Your task to perform on an android device: Open network settings Image 0: 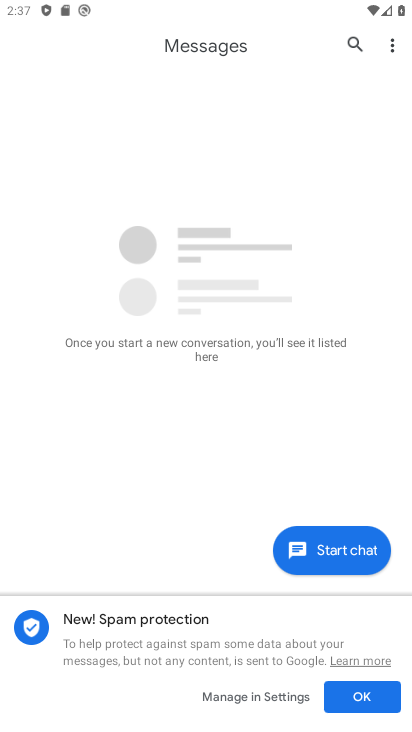
Step 0: press home button
Your task to perform on an android device: Open network settings Image 1: 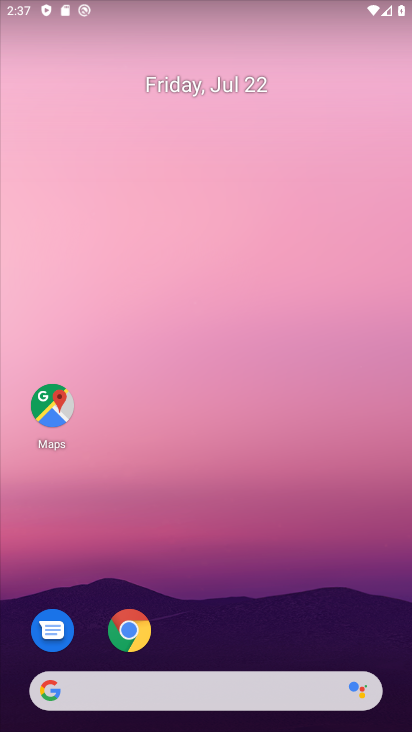
Step 1: drag from (257, 717) to (221, 257)
Your task to perform on an android device: Open network settings Image 2: 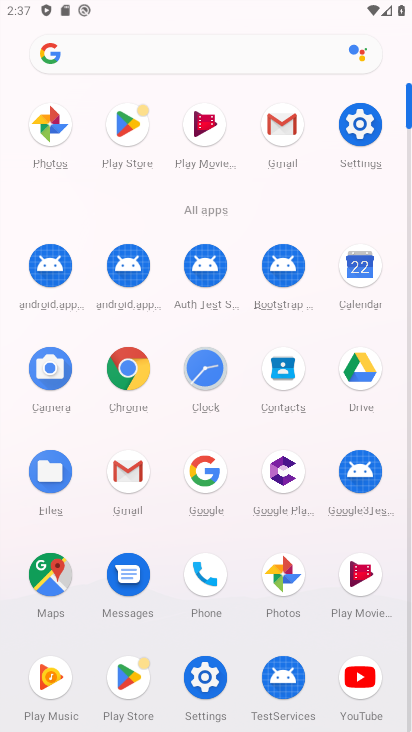
Step 2: click (356, 128)
Your task to perform on an android device: Open network settings Image 3: 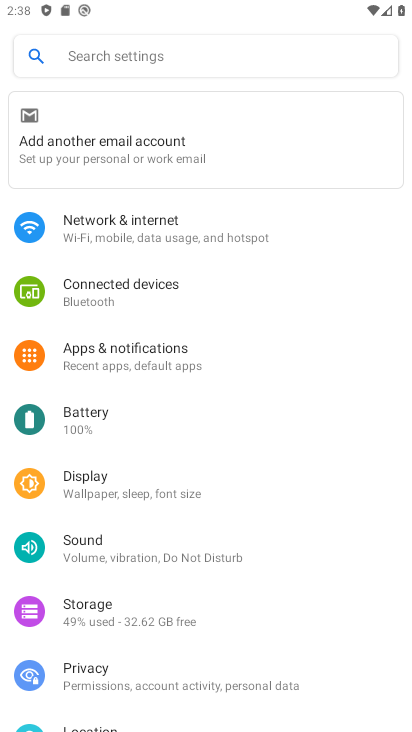
Step 3: click (144, 231)
Your task to perform on an android device: Open network settings Image 4: 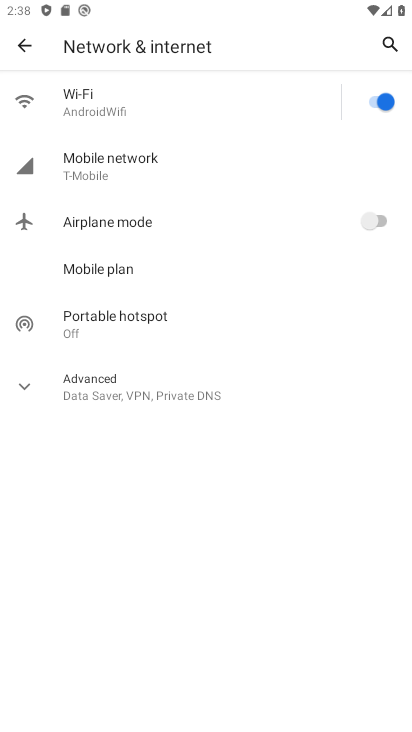
Step 4: task complete